Your task to perform on an android device: Open Youtube and go to the subscriptions tab Image 0: 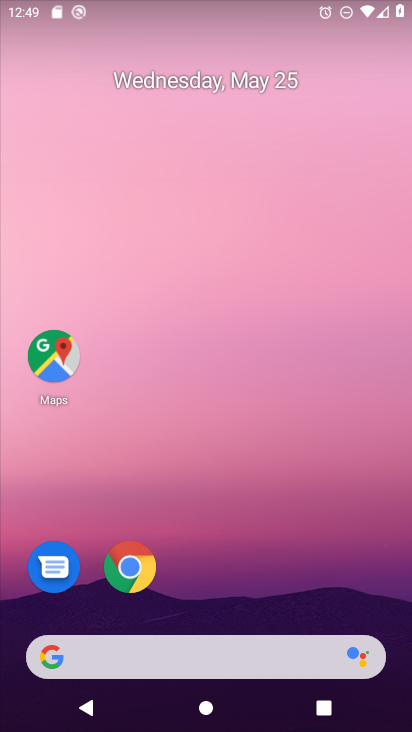
Step 0: drag from (394, 700) to (376, 233)
Your task to perform on an android device: Open Youtube and go to the subscriptions tab Image 1: 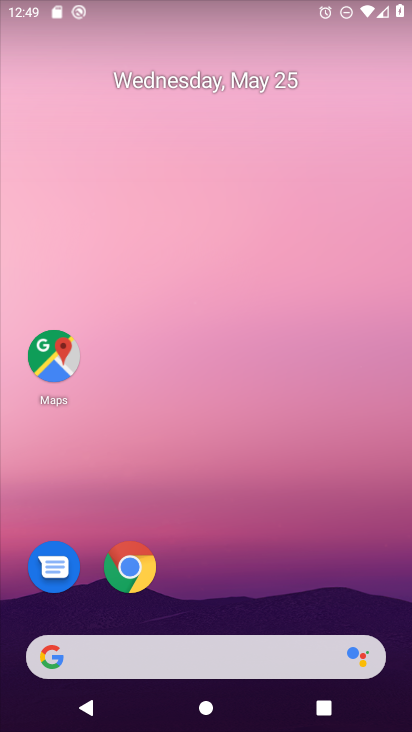
Step 1: drag from (399, 712) to (370, 279)
Your task to perform on an android device: Open Youtube and go to the subscriptions tab Image 2: 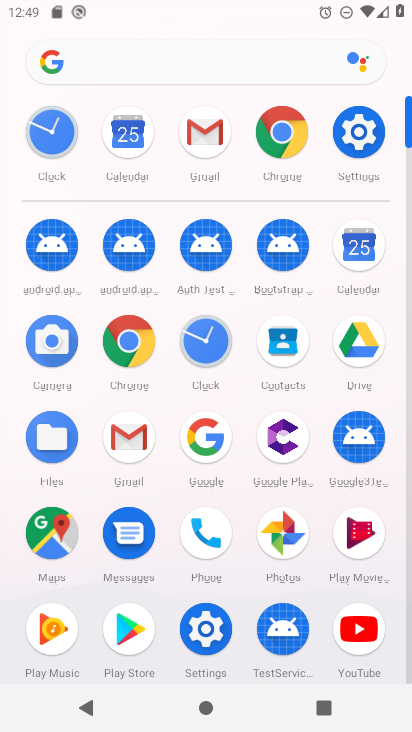
Step 2: click (373, 623)
Your task to perform on an android device: Open Youtube and go to the subscriptions tab Image 3: 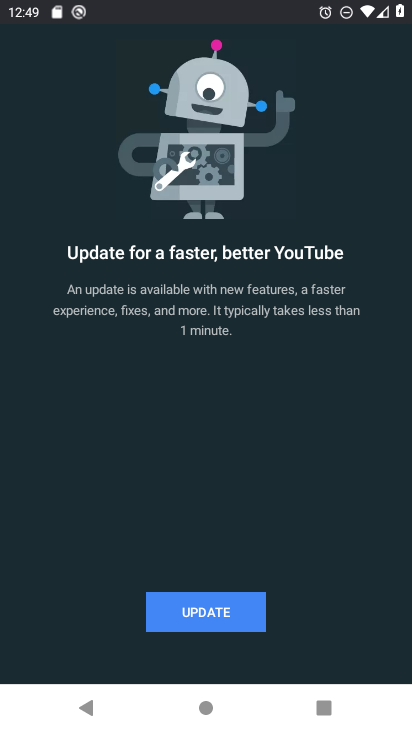
Step 3: press back button
Your task to perform on an android device: Open Youtube and go to the subscriptions tab Image 4: 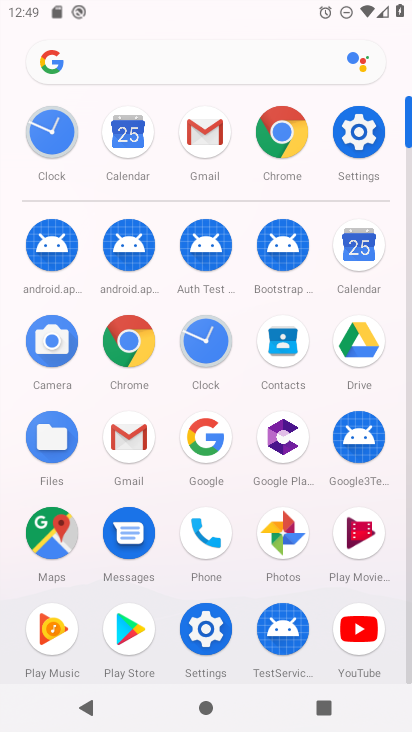
Step 4: click (372, 625)
Your task to perform on an android device: Open Youtube and go to the subscriptions tab Image 5: 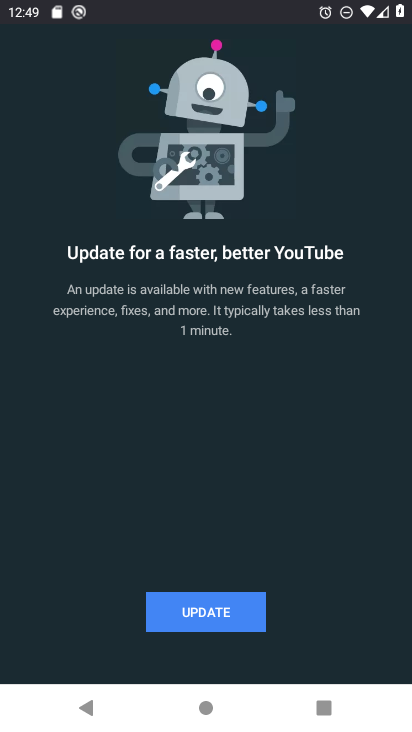
Step 5: click (213, 618)
Your task to perform on an android device: Open Youtube and go to the subscriptions tab Image 6: 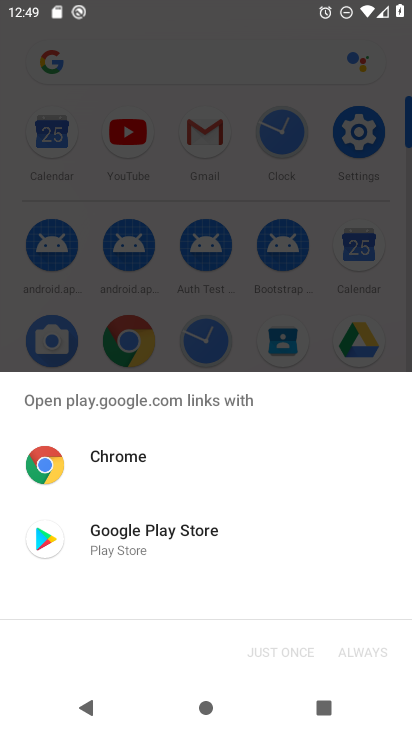
Step 6: click (94, 525)
Your task to perform on an android device: Open Youtube and go to the subscriptions tab Image 7: 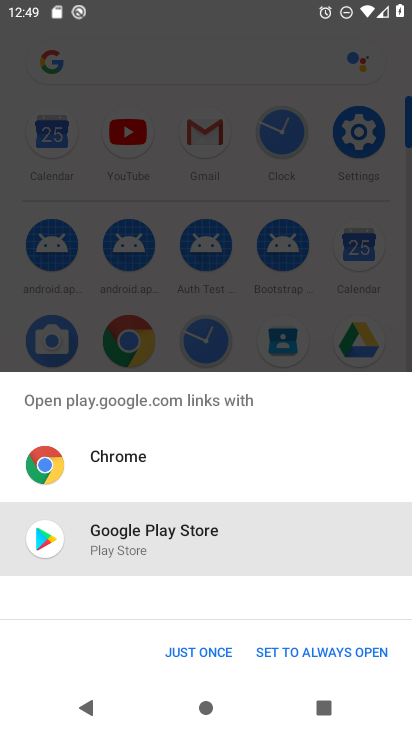
Step 7: click (221, 645)
Your task to perform on an android device: Open Youtube and go to the subscriptions tab Image 8: 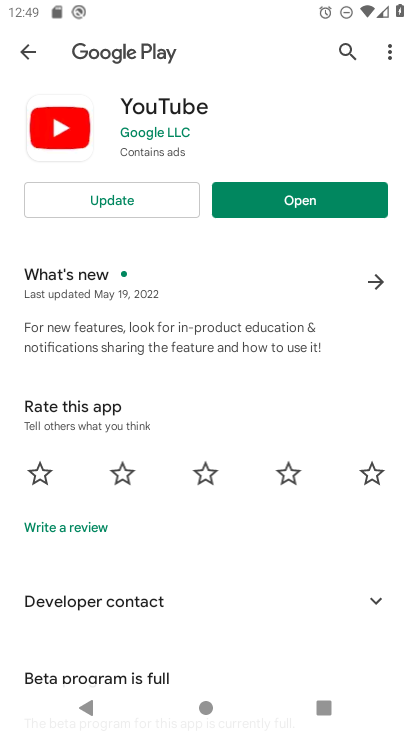
Step 8: click (96, 198)
Your task to perform on an android device: Open Youtube and go to the subscriptions tab Image 9: 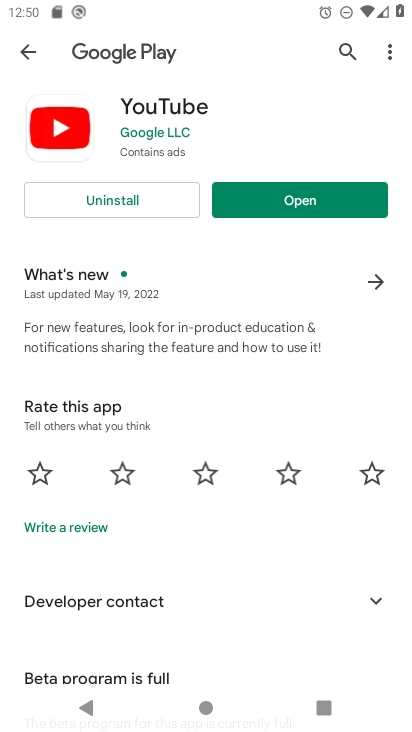
Step 9: click (275, 199)
Your task to perform on an android device: Open Youtube and go to the subscriptions tab Image 10: 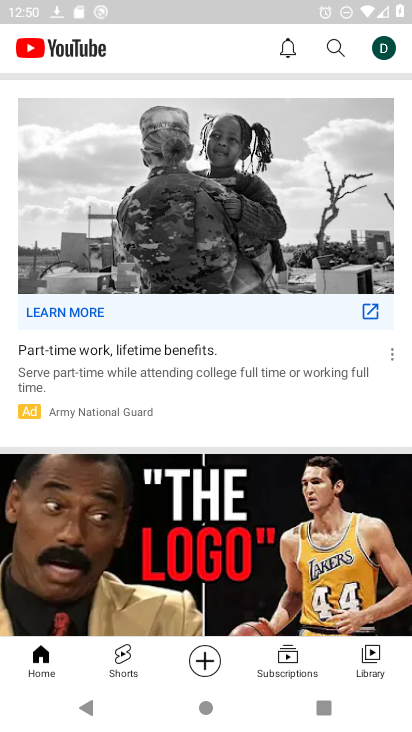
Step 10: click (290, 650)
Your task to perform on an android device: Open Youtube and go to the subscriptions tab Image 11: 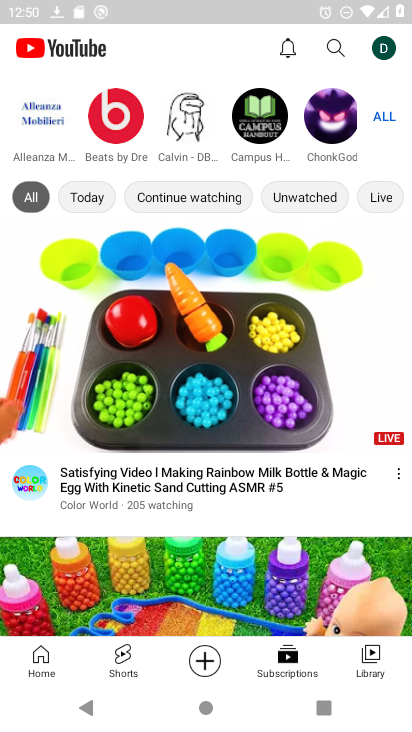
Step 11: task complete